Your task to perform on an android device: What's the weather going to be tomorrow? Image 0: 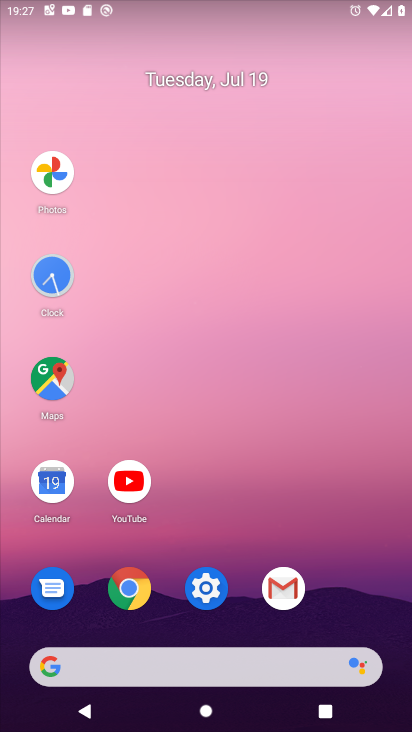
Step 0: click (216, 656)
Your task to perform on an android device: What's the weather going to be tomorrow? Image 1: 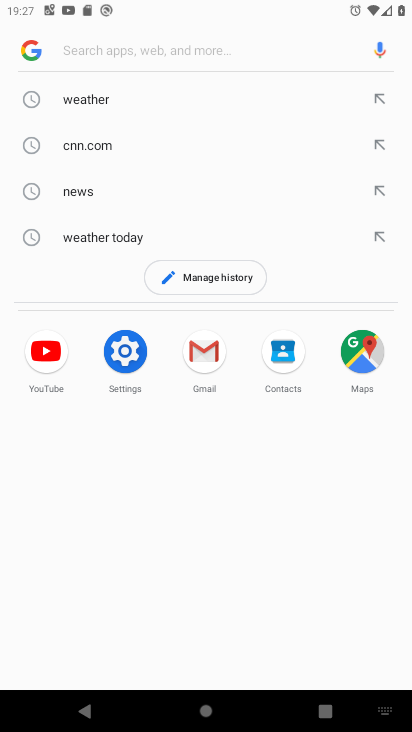
Step 1: click (97, 97)
Your task to perform on an android device: What's the weather going to be tomorrow? Image 2: 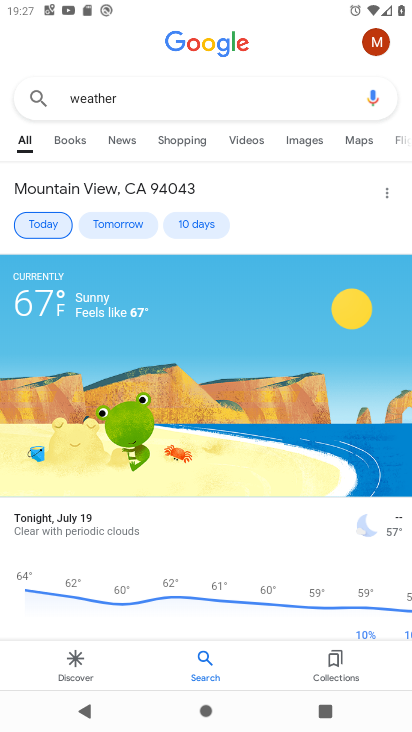
Step 2: click (120, 221)
Your task to perform on an android device: What's the weather going to be tomorrow? Image 3: 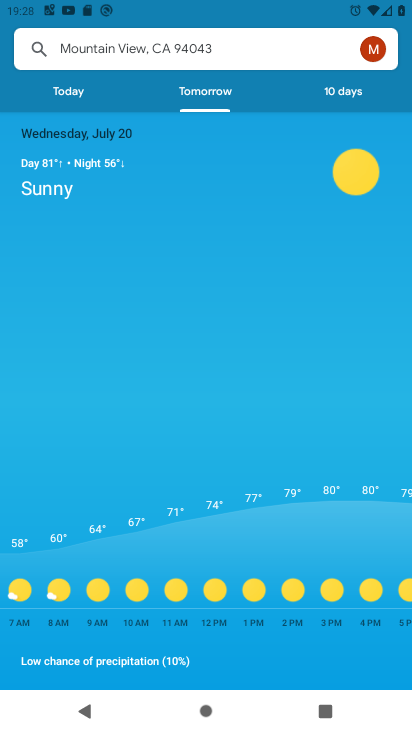
Step 3: task complete